Your task to perform on an android device: When is my next appointment? Image 0: 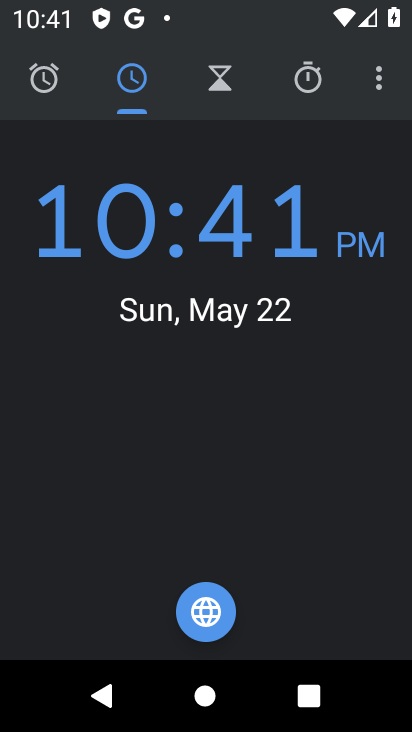
Step 0: press home button
Your task to perform on an android device: When is my next appointment? Image 1: 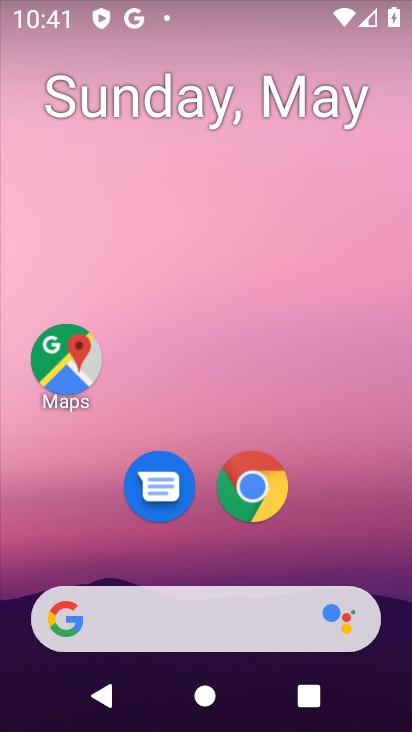
Step 1: drag from (217, 561) to (193, 185)
Your task to perform on an android device: When is my next appointment? Image 2: 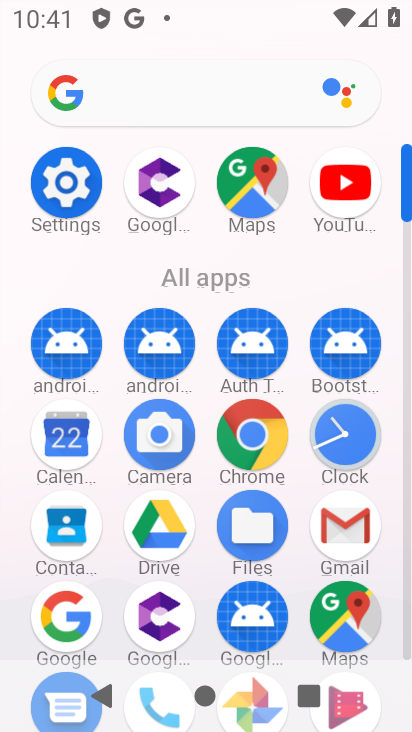
Step 2: click (252, 638)
Your task to perform on an android device: When is my next appointment? Image 3: 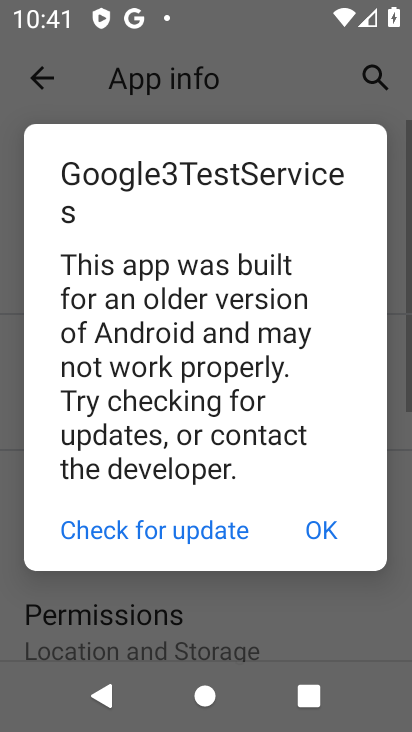
Step 3: click (312, 535)
Your task to perform on an android device: When is my next appointment? Image 4: 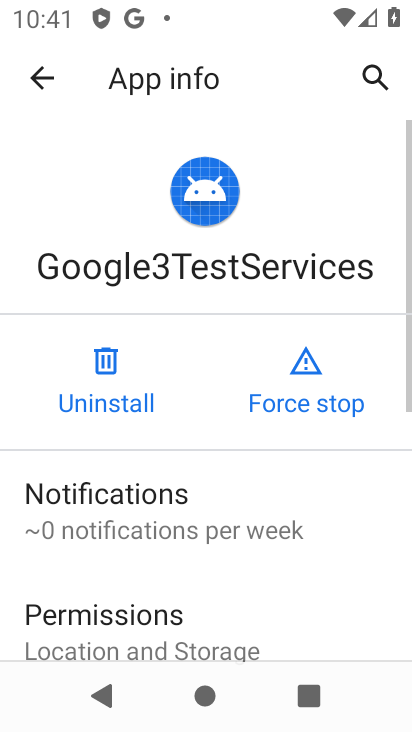
Step 4: click (23, 81)
Your task to perform on an android device: When is my next appointment? Image 5: 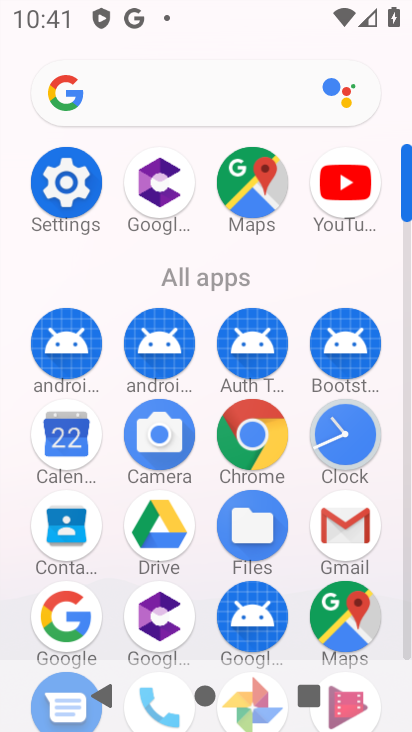
Step 5: click (57, 450)
Your task to perform on an android device: When is my next appointment? Image 6: 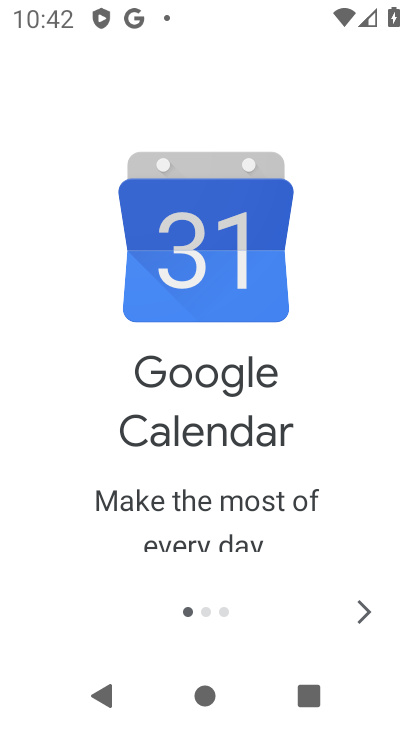
Step 6: click (358, 621)
Your task to perform on an android device: When is my next appointment? Image 7: 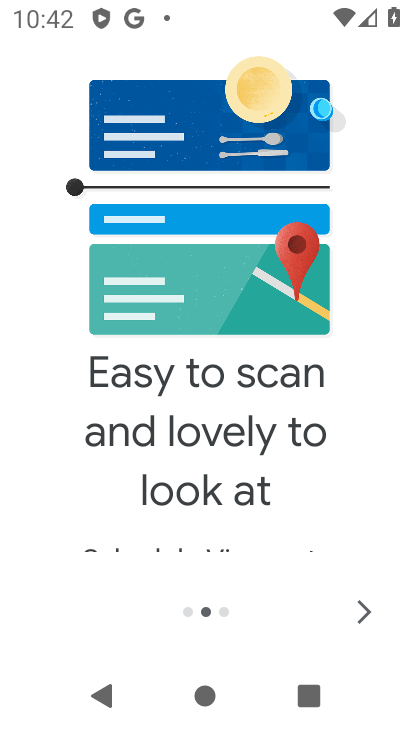
Step 7: click (364, 620)
Your task to perform on an android device: When is my next appointment? Image 8: 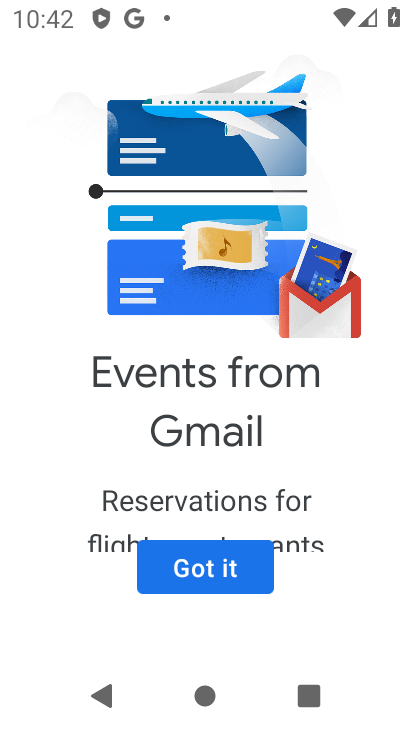
Step 8: click (195, 568)
Your task to perform on an android device: When is my next appointment? Image 9: 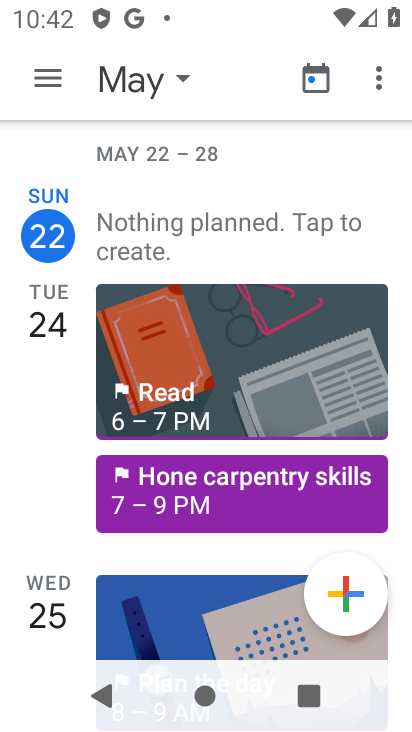
Step 9: drag from (180, 623) to (155, 371)
Your task to perform on an android device: When is my next appointment? Image 10: 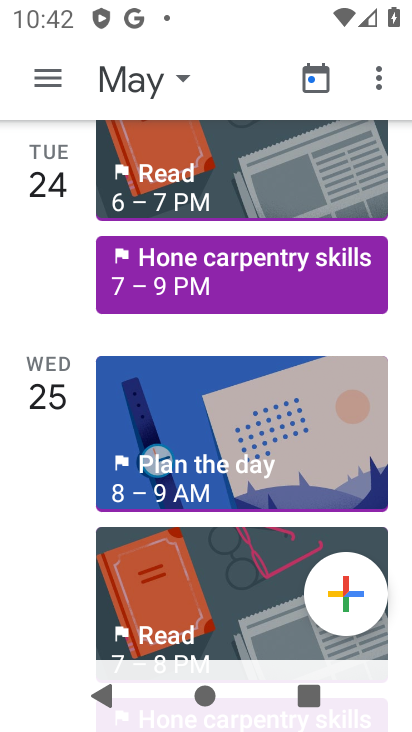
Step 10: drag from (177, 571) to (174, 259)
Your task to perform on an android device: When is my next appointment? Image 11: 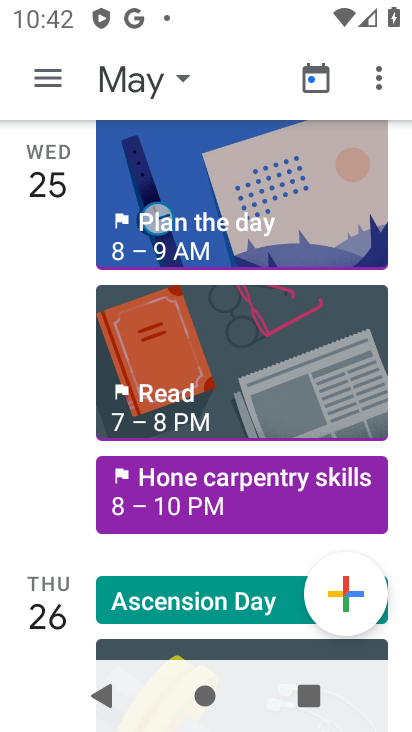
Step 11: drag from (168, 573) to (179, 221)
Your task to perform on an android device: When is my next appointment? Image 12: 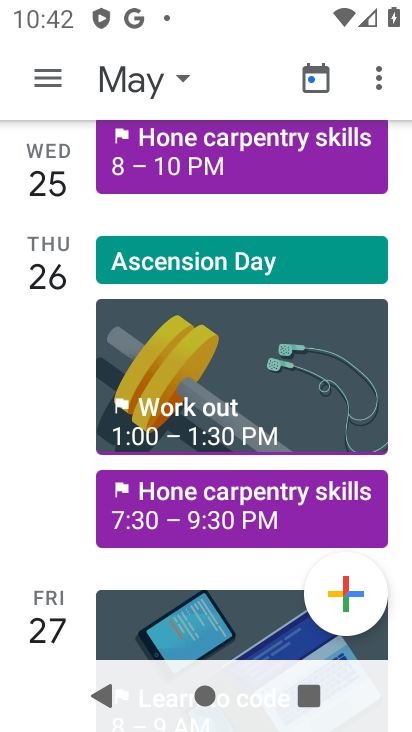
Step 12: drag from (240, 557) to (225, 180)
Your task to perform on an android device: When is my next appointment? Image 13: 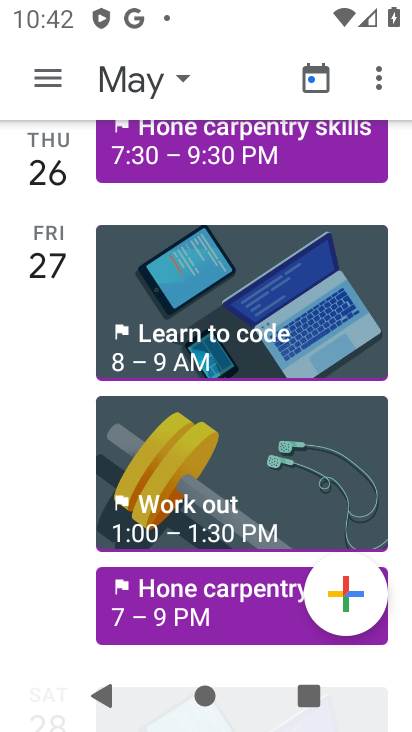
Step 13: click (234, 594)
Your task to perform on an android device: When is my next appointment? Image 14: 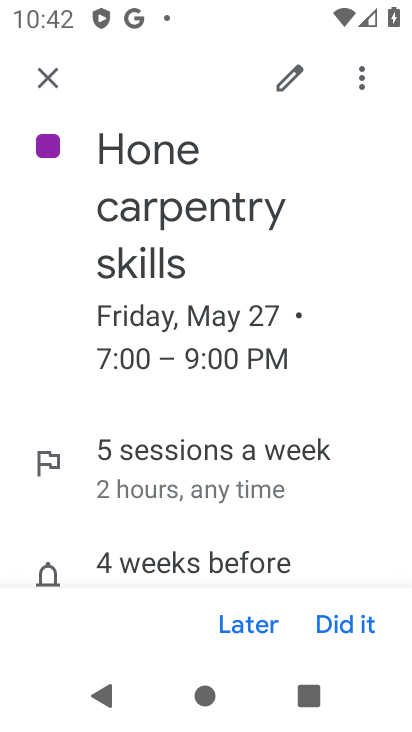
Step 14: click (51, 93)
Your task to perform on an android device: When is my next appointment? Image 15: 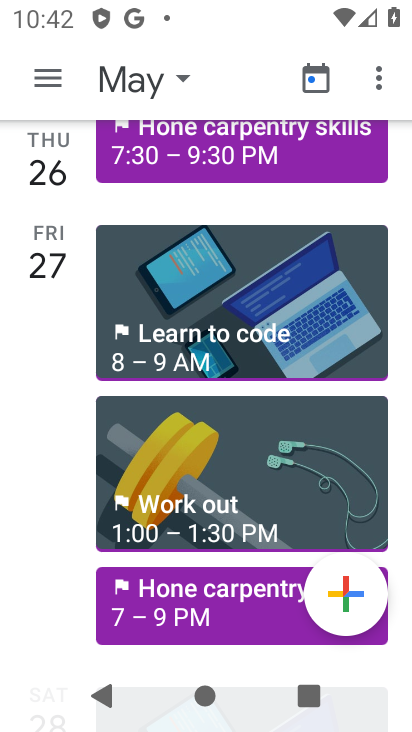
Step 15: drag from (191, 575) to (184, 189)
Your task to perform on an android device: When is my next appointment? Image 16: 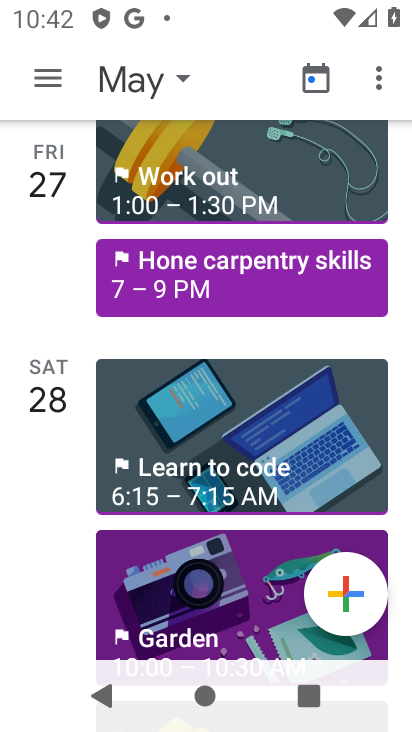
Step 16: drag from (204, 598) to (216, 151)
Your task to perform on an android device: When is my next appointment? Image 17: 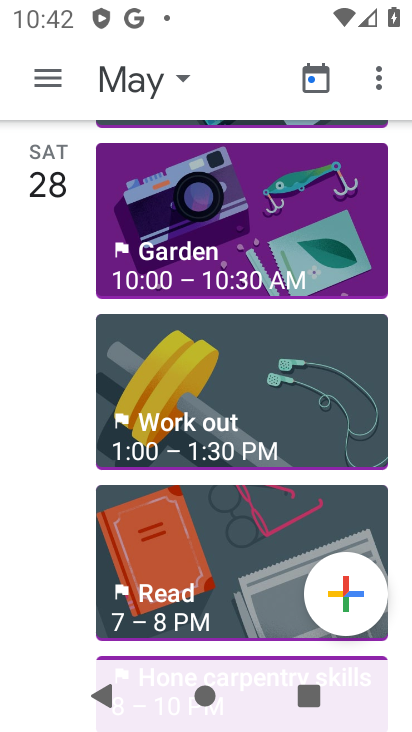
Step 17: drag from (228, 502) to (201, 246)
Your task to perform on an android device: When is my next appointment? Image 18: 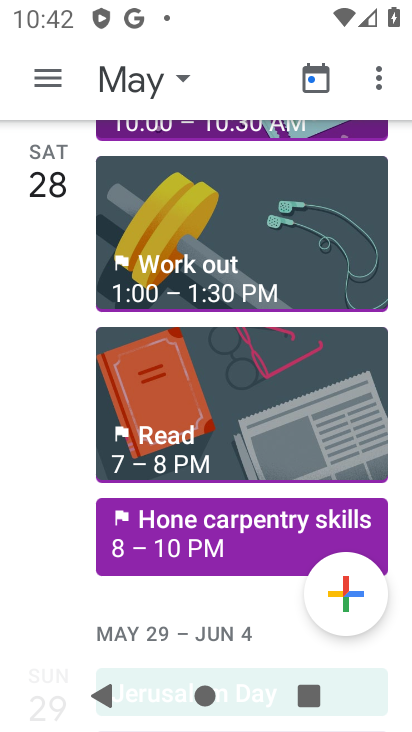
Step 18: drag from (196, 567) to (195, 321)
Your task to perform on an android device: When is my next appointment? Image 19: 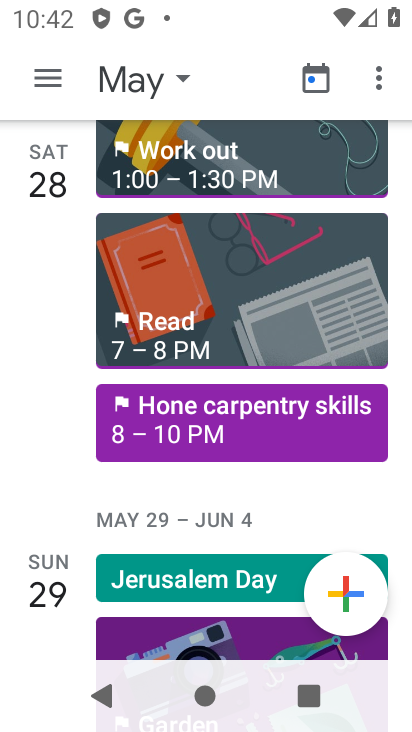
Step 19: drag from (251, 658) to (285, 293)
Your task to perform on an android device: When is my next appointment? Image 20: 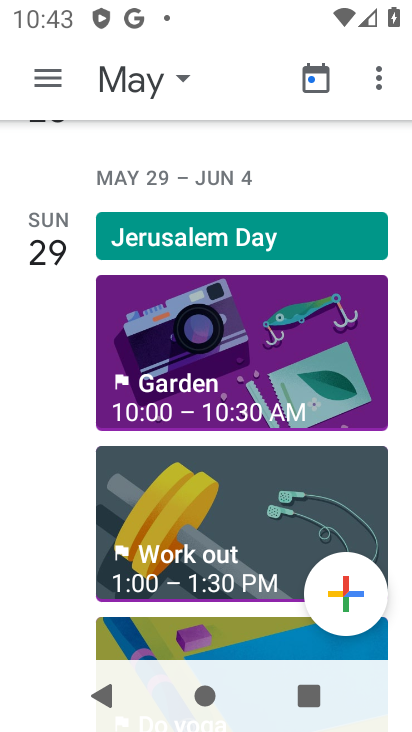
Step 20: drag from (177, 646) to (193, 213)
Your task to perform on an android device: When is my next appointment? Image 21: 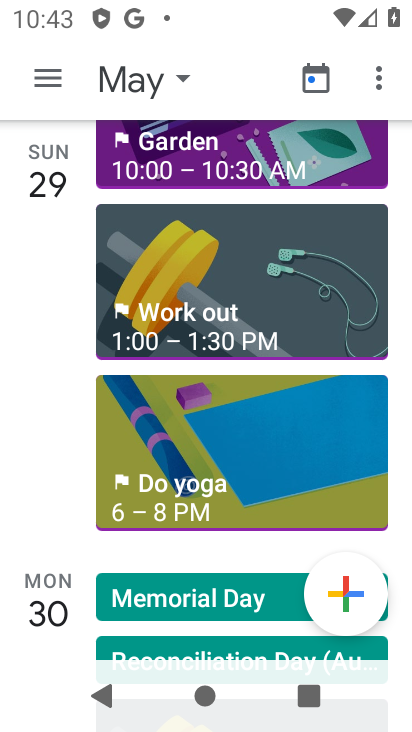
Step 21: drag from (60, 574) to (118, 279)
Your task to perform on an android device: When is my next appointment? Image 22: 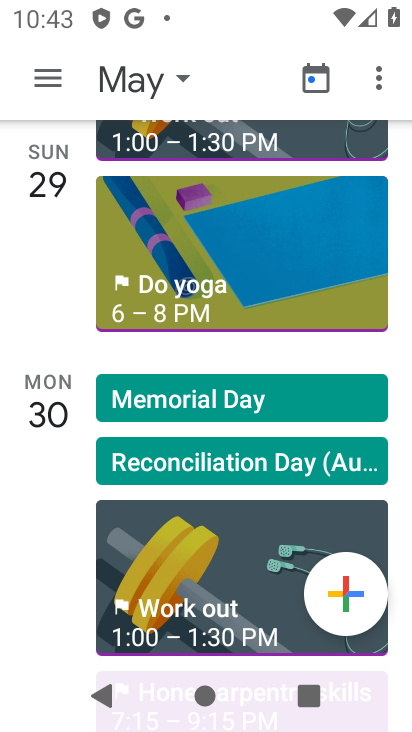
Step 22: drag from (170, 631) to (176, 300)
Your task to perform on an android device: When is my next appointment? Image 23: 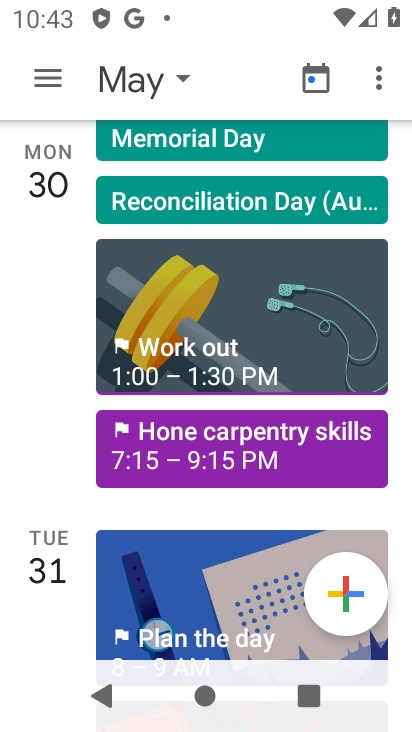
Step 23: click (148, 351)
Your task to perform on an android device: When is my next appointment? Image 24: 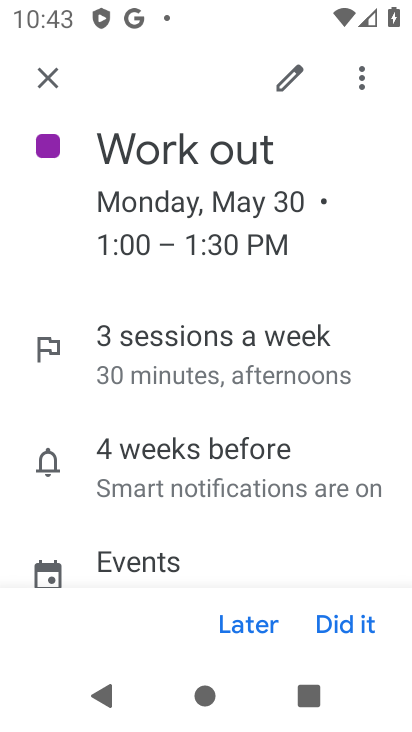
Step 24: click (34, 93)
Your task to perform on an android device: When is my next appointment? Image 25: 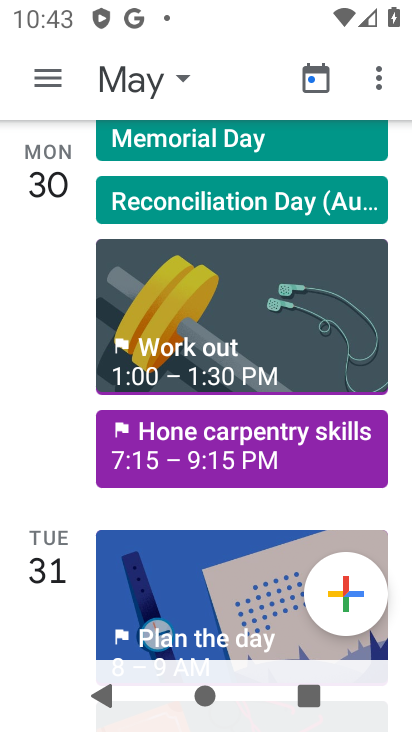
Step 25: task complete